Your task to perform on an android device: Open settings on Google Maps Image 0: 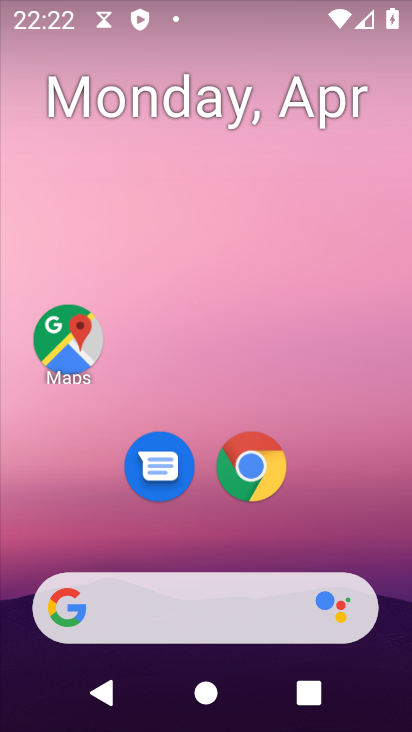
Step 0: click (82, 375)
Your task to perform on an android device: Open settings on Google Maps Image 1: 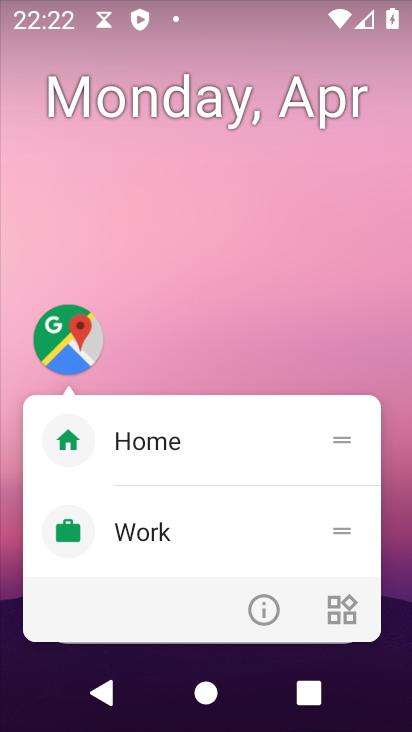
Step 1: click (75, 356)
Your task to perform on an android device: Open settings on Google Maps Image 2: 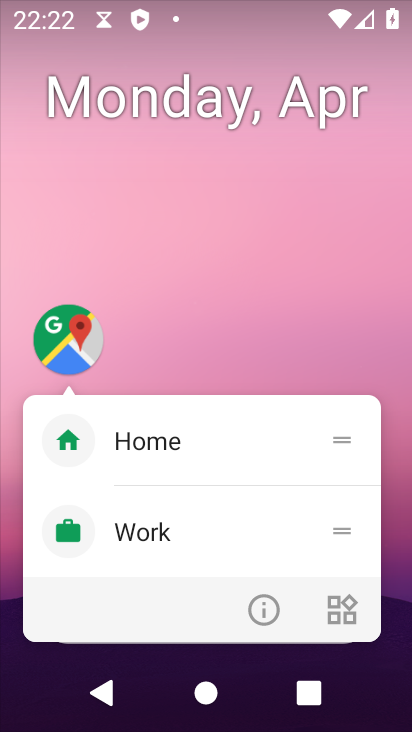
Step 2: click (165, 314)
Your task to perform on an android device: Open settings on Google Maps Image 3: 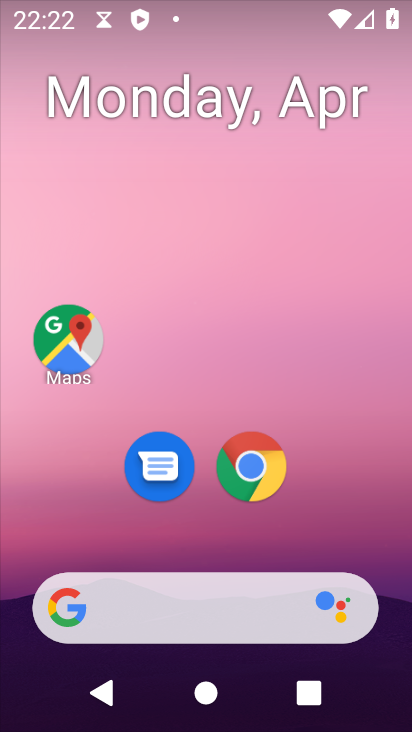
Step 3: click (71, 350)
Your task to perform on an android device: Open settings on Google Maps Image 4: 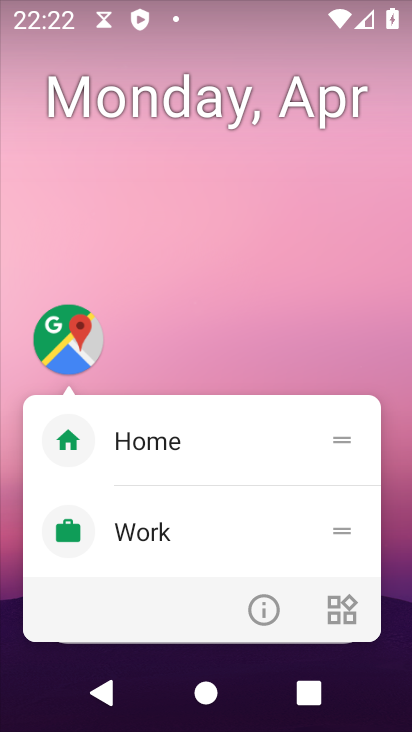
Step 4: click (183, 314)
Your task to perform on an android device: Open settings on Google Maps Image 5: 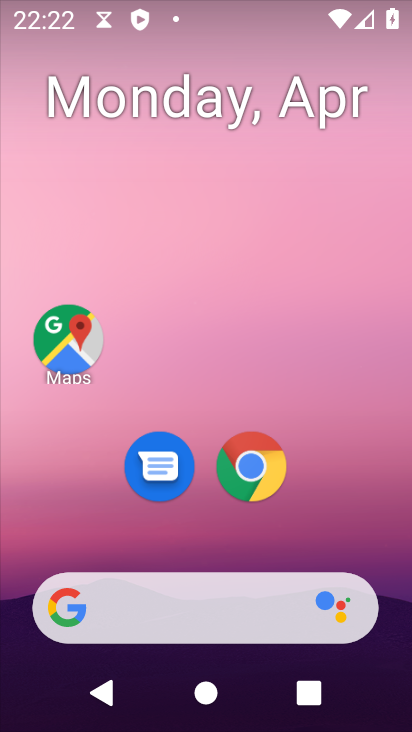
Step 5: click (84, 336)
Your task to perform on an android device: Open settings on Google Maps Image 6: 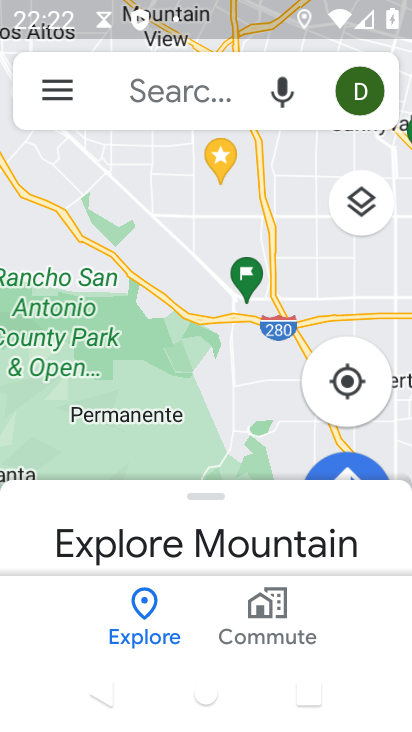
Step 6: click (45, 90)
Your task to perform on an android device: Open settings on Google Maps Image 7: 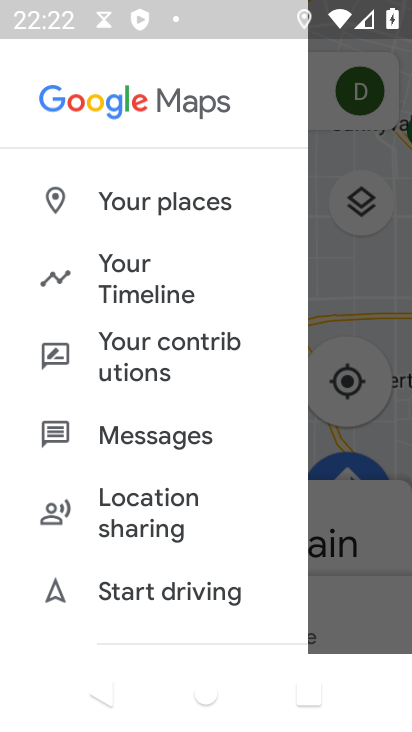
Step 7: drag from (178, 409) to (141, 236)
Your task to perform on an android device: Open settings on Google Maps Image 8: 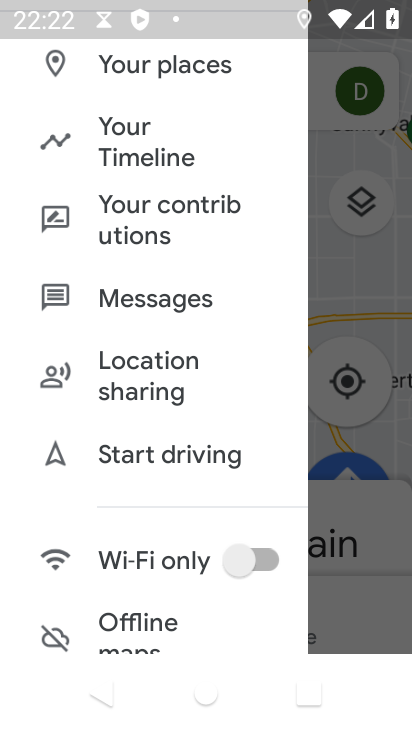
Step 8: drag from (144, 507) to (102, 245)
Your task to perform on an android device: Open settings on Google Maps Image 9: 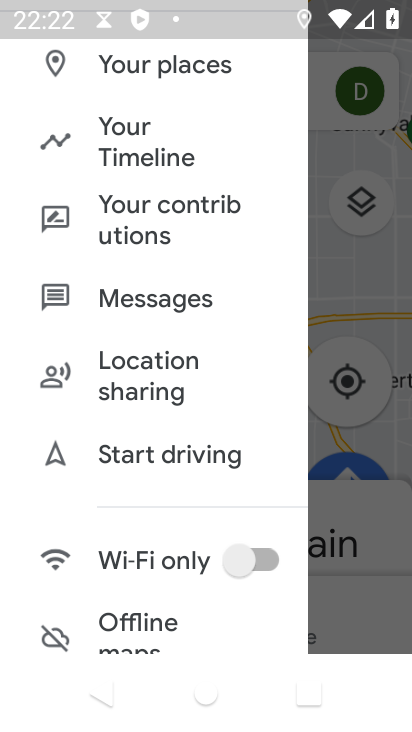
Step 9: drag from (168, 488) to (183, 255)
Your task to perform on an android device: Open settings on Google Maps Image 10: 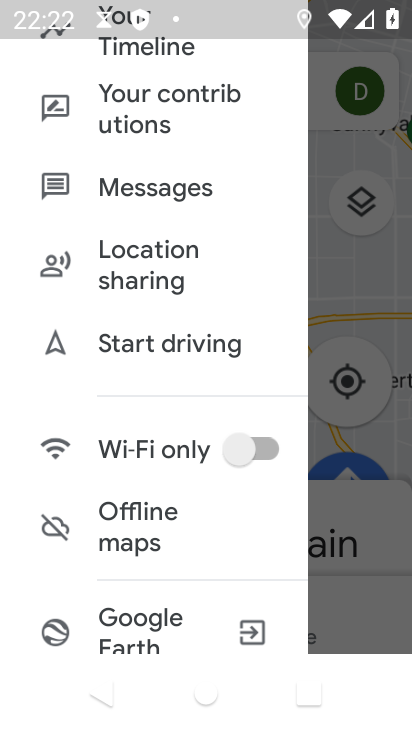
Step 10: drag from (161, 581) to (157, 298)
Your task to perform on an android device: Open settings on Google Maps Image 11: 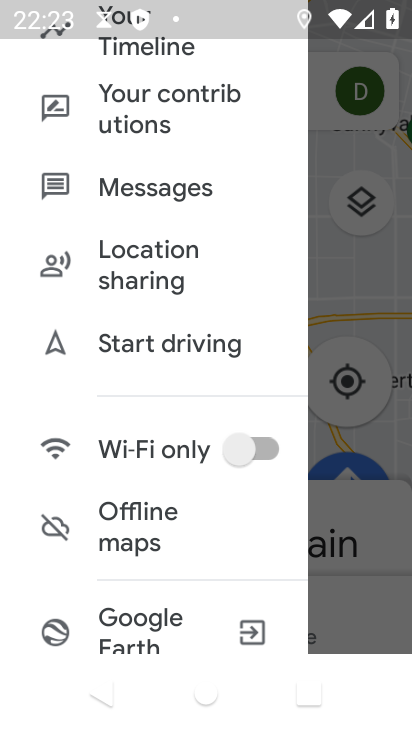
Step 11: drag from (199, 566) to (191, 272)
Your task to perform on an android device: Open settings on Google Maps Image 12: 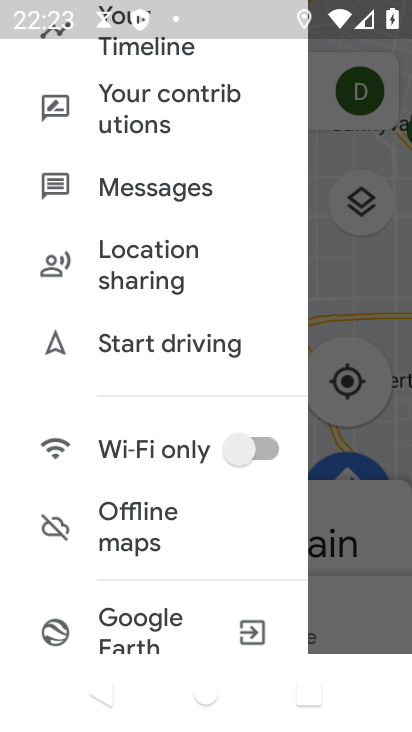
Step 12: drag from (168, 572) to (172, 341)
Your task to perform on an android device: Open settings on Google Maps Image 13: 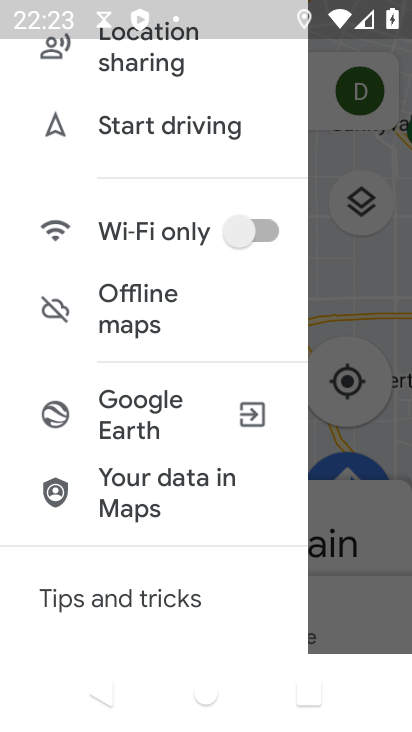
Step 13: drag from (174, 543) to (161, 290)
Your task to perform on an android device: Open settings on Google Maps Image 14: 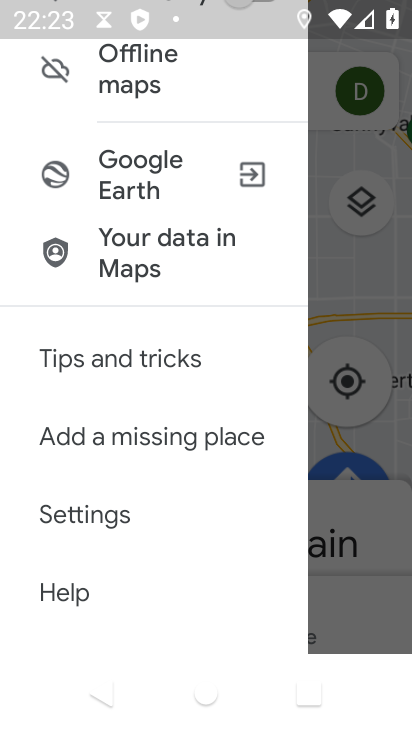
Step 14: click (83, 506)
Your task to perform on an android device: Open settings on Google Maps Image 15: 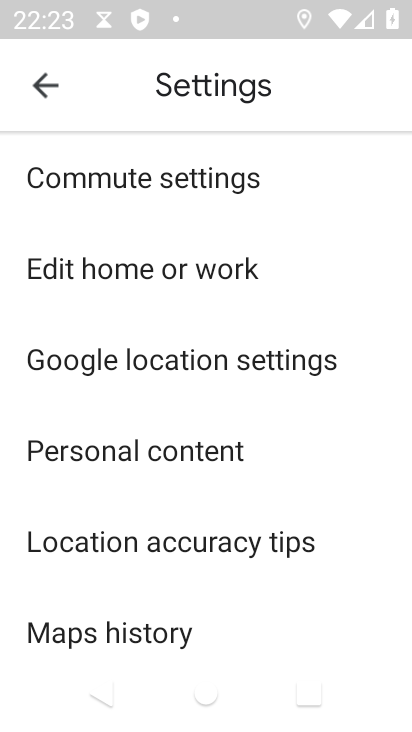
Step 15: task complete